Your task to perform on an android device: Turn on the flashlight Image 0: 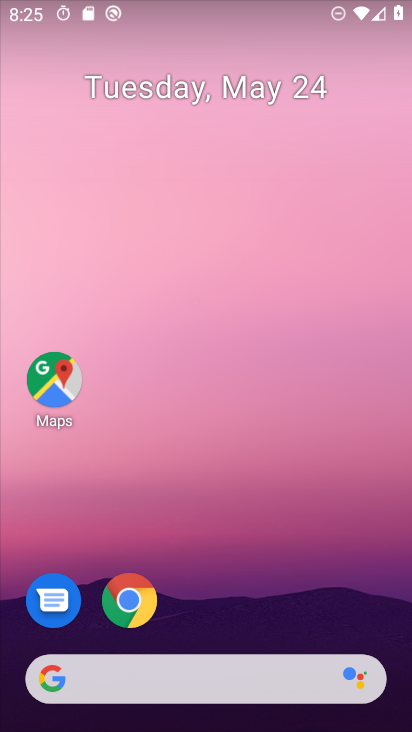
Step 0: drag from (209, 628) to (283, 29)
Your task to perform on an android device: Turn on the flashlight Image 1: 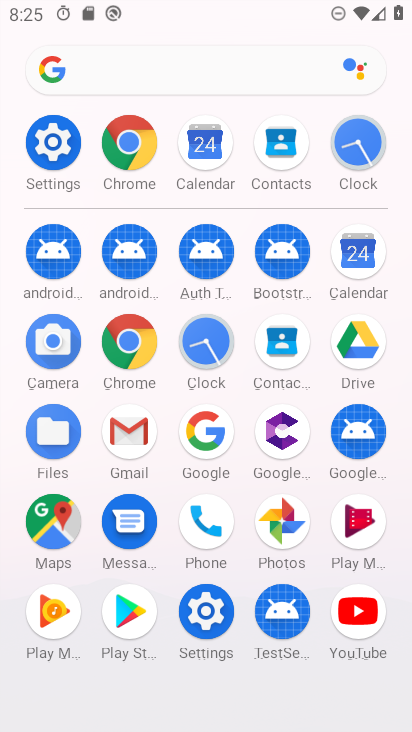
Step 1: click (62, 138)
Your task to perform on an android device: Turn on the flashlight Image 2: 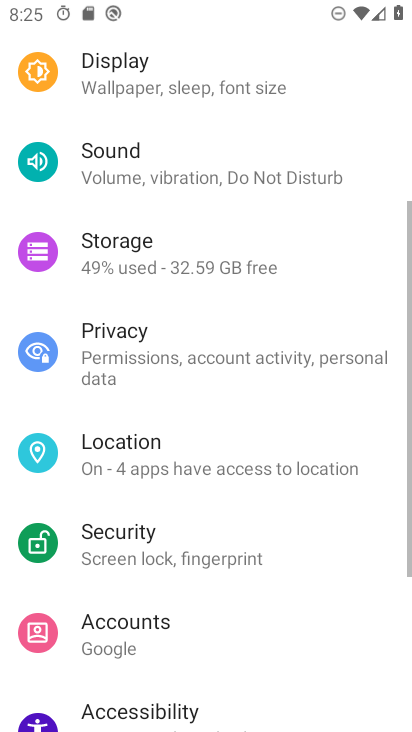
Step 2: drag from (352, 176) to (319, 646)
Your task to perform on an android device: Turn on the flashlight Image 3: 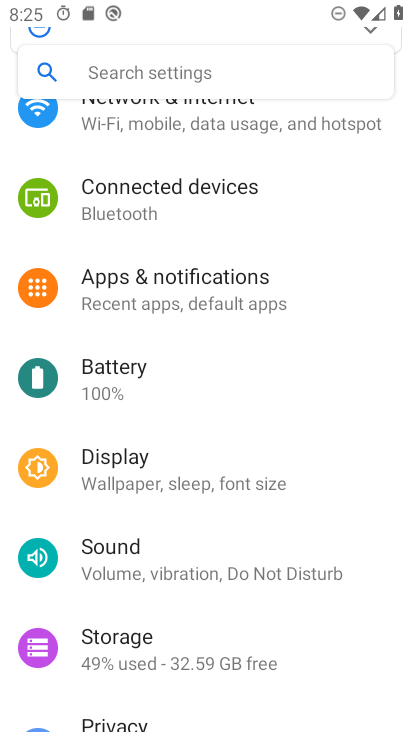
Step 3: click (153, 80)
Your task to perform on an android device: Turn on the flashlight Image 4: 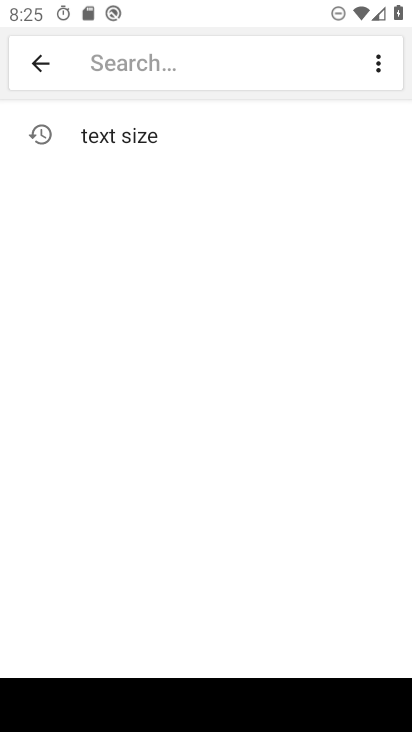
Step 4: type "flashlight"
Your task to perform on an android device: Turn on the flashlight Image 5: 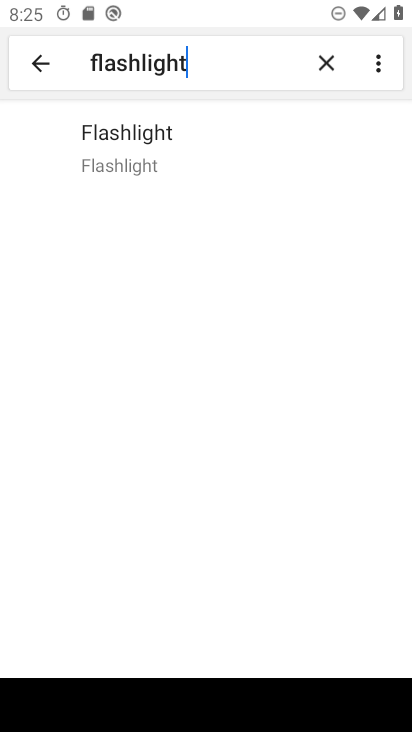
Step 5: click (144, 177)
Your task to perform on an android device: Turn on the flashlight Image 6: 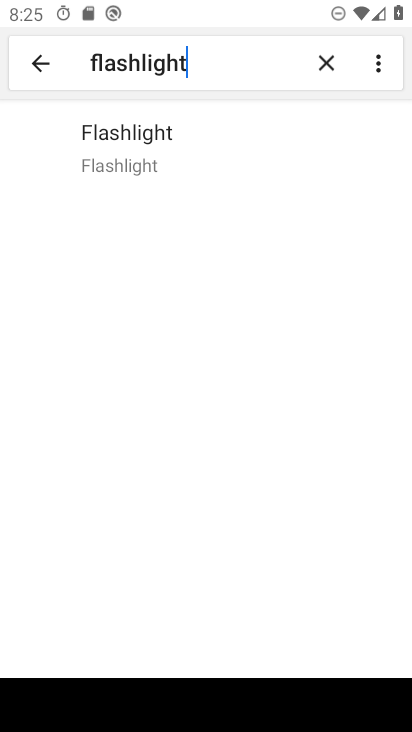
Step 6: task complete